Your task to perform on an android device: snooze an email in the gmail app Image 0: 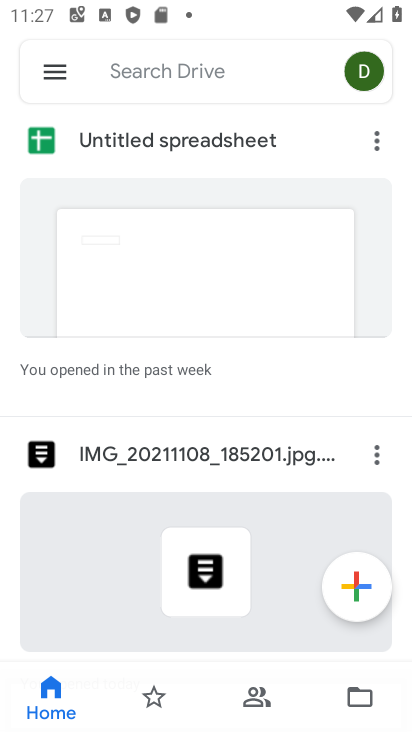
Step 0: press home button
Your task to perform on an android device: snooze an email in the gmail app Image 1: 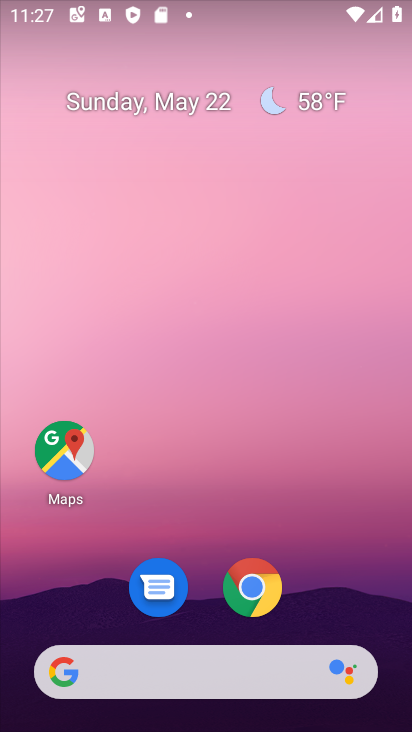
Step 1: drag from (170, 512) to (164, 20)
Your task to perform on an android device: snooze an email in the gmail app Image 2: 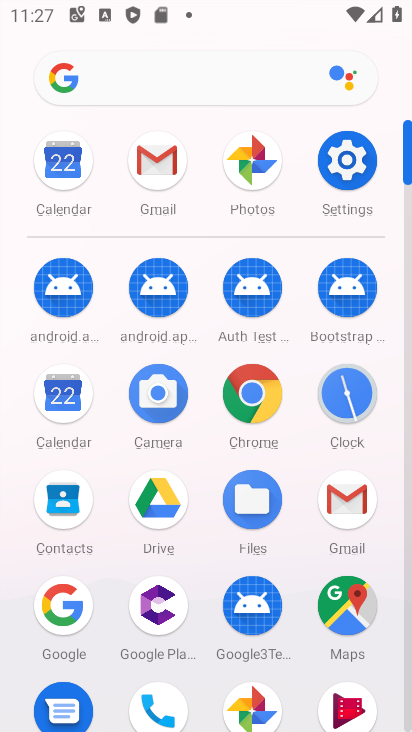
Step 2: click (155, 148)
Your task to perform on an android device: snooze an email in the gmail app Image 3: 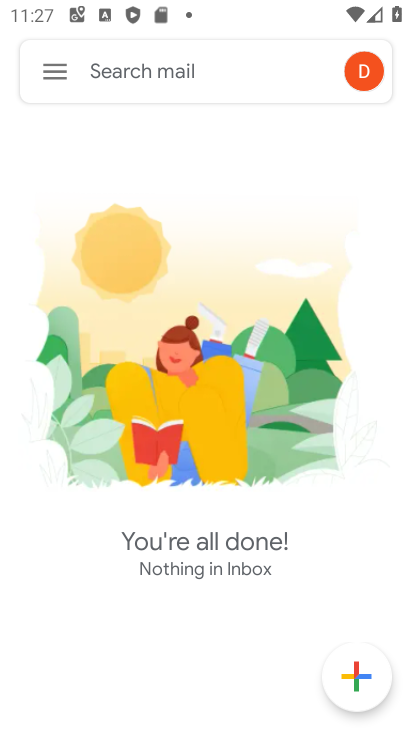
Step 3: click (52, 61)
Your task to perform on an android device: snooze an email in the gmail app Image 4: 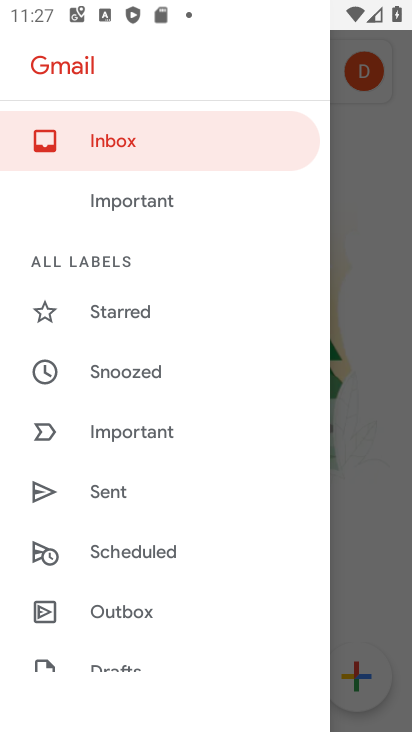
Step 4: drag from (163, 506) to (189, 200)
Your task to perform on an android device: snooze an email in the gmail app Image 5: 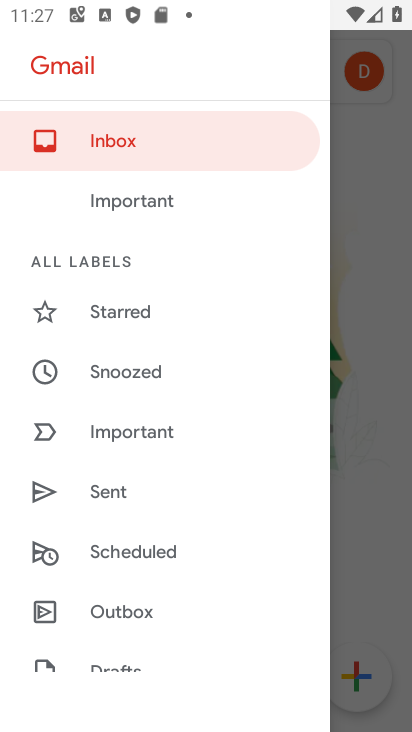
Step 5: drag from (143, 492) to (205, 66)
Your task to perform on an android device: snooze an email in the gmail app Image 6: 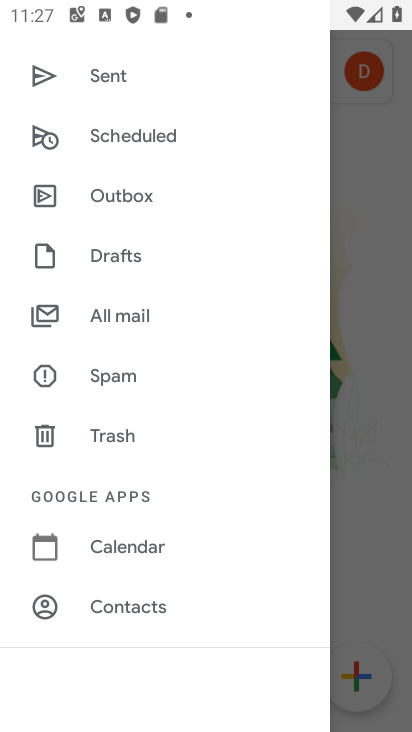
Step 6: click (134, 306)
Your task to perform on an android device: snooze an email in the gmail app Image 7: 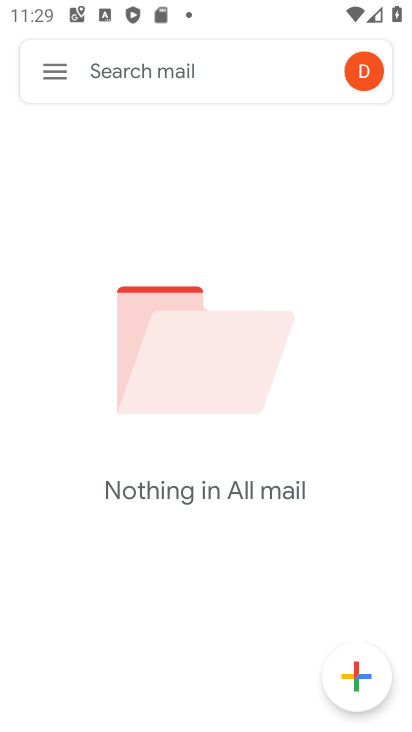
Step 7: task complete